Your task to perform on an android device: Open the calendar app, open the side menu, and click the "Day" option Image 0: 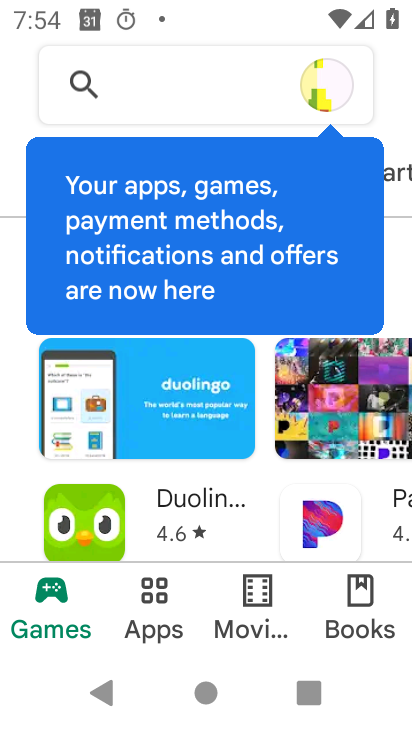
Step 0: press back button
Your task to perform on an android device: Open the calendar app, open the side menu, and click the "Day" option Image 1: 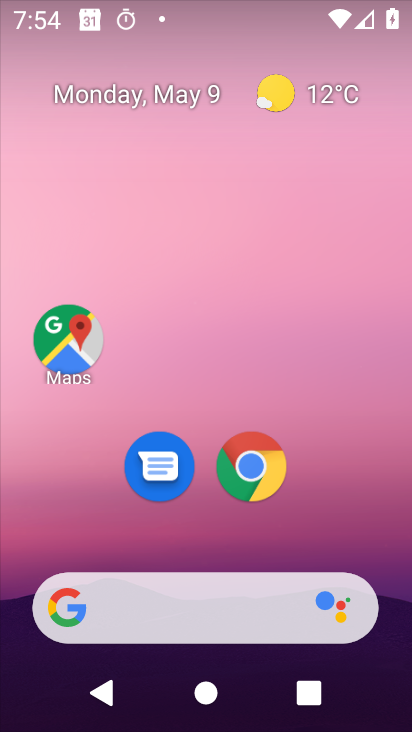
Step 1: click (273, 98)
Your task to perform on an android device: Open the calendar app, open the side menu, and click the "Day" option Image 2: 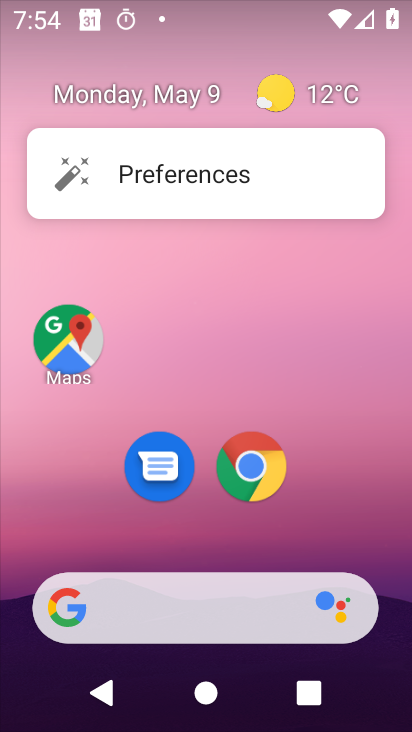
Step 2: click (272, 96)
Your task to perform on an android device: Open the calendar app, open the side menu, and click the "Day" option Image 3: 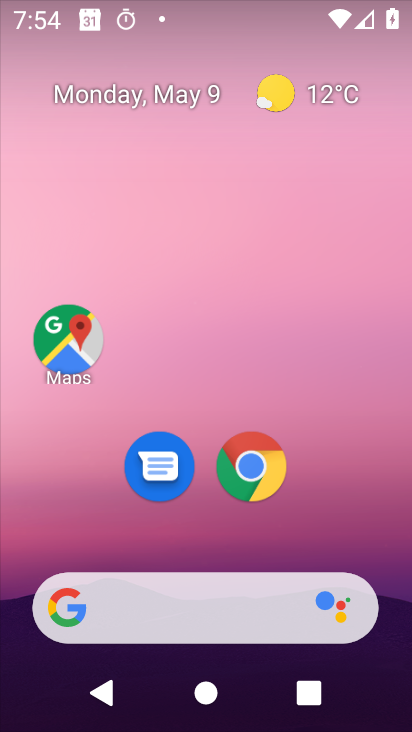
Step 3: click (272, 96)
Your task to perform on an android device: Open the calendar app, open the side menu, and click the "Day" option Image 4: 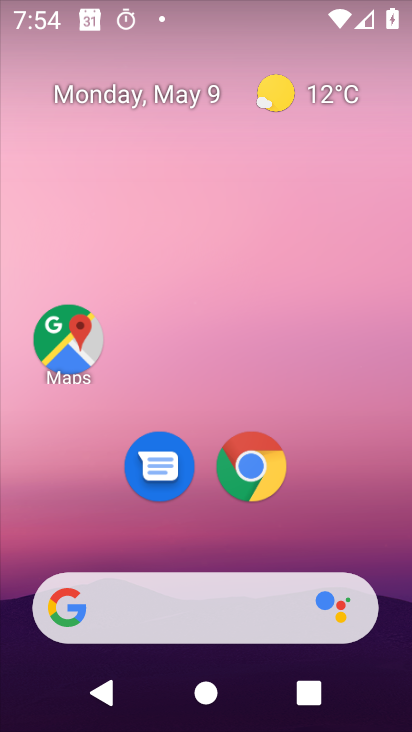
Step 4: click (272, 96)
Your task to perform on an android device: Open the calendar app, open the side menu, and click the "Day" option Image 5: 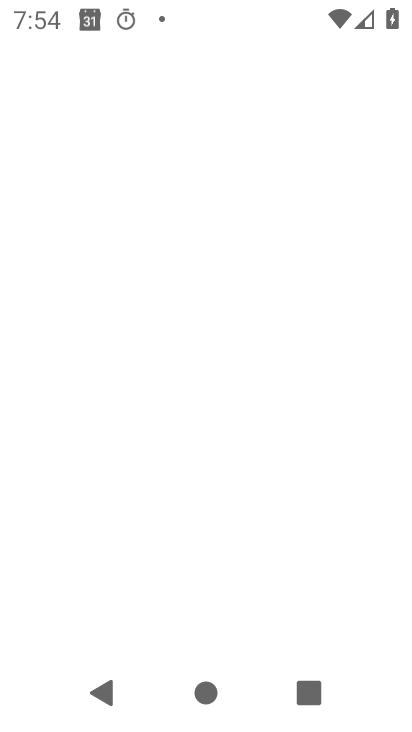
Step 5: click (272, 96)
Your task to perform on an android device: Open the calendar app, open the side menu, and click the "Day" option Image 6: 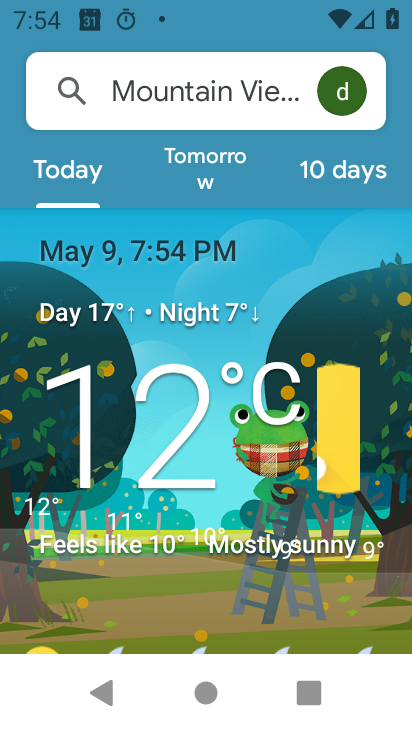
Step 6: click (332, 158)
Your task to perform on an android device: Open the calendar app, open the side menu, and click the "Day" option Image 7: 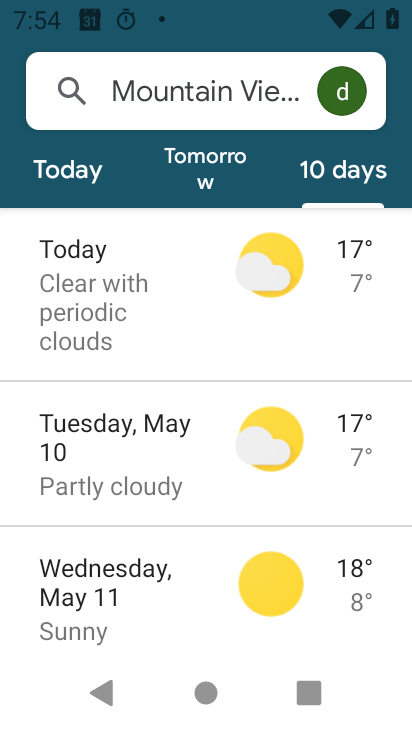
Step 7: task complete